Your task to perform on an android device: Open network settings Image 0: 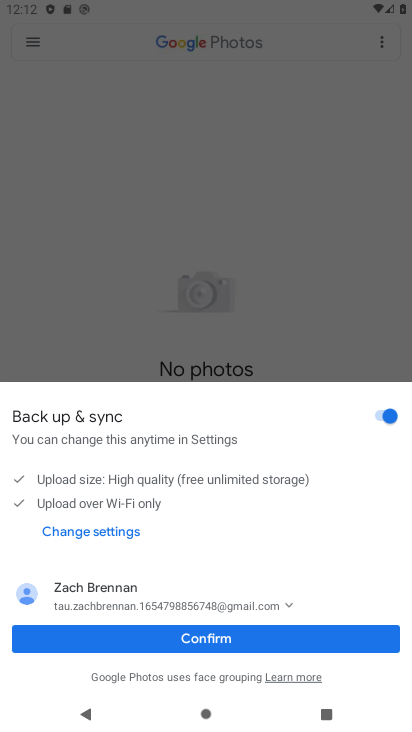
Step 0: press home button
Your task to perform on an android device: Open network settings Image 1: 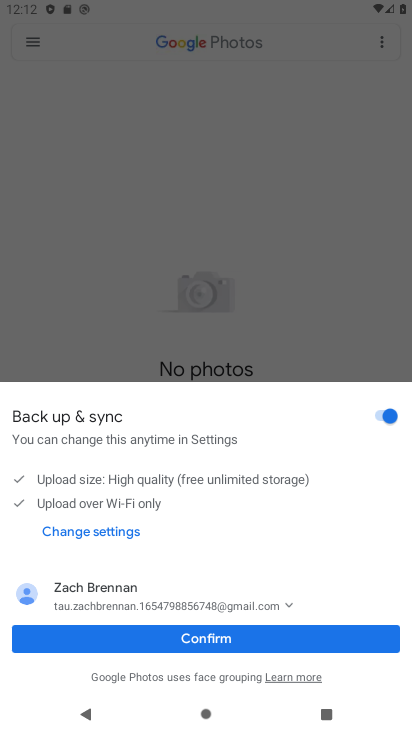
Step 1: press home button
Your task to perform on an android device: Open network settings Image 2: 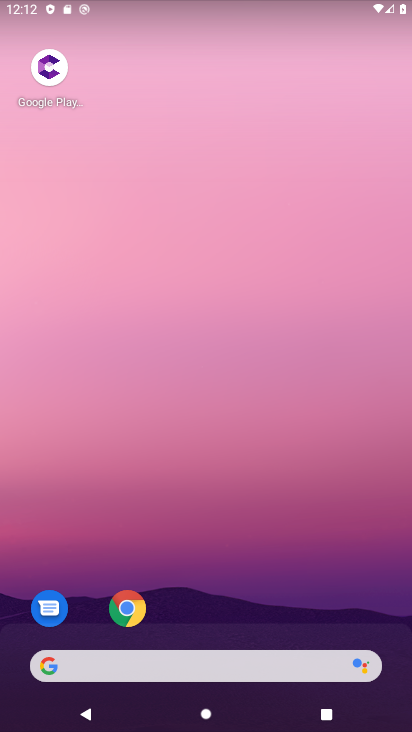
Step 2: drag from (285, 595) to (315, 15)
Your task to perform on an android device: Open network settings Image 3: 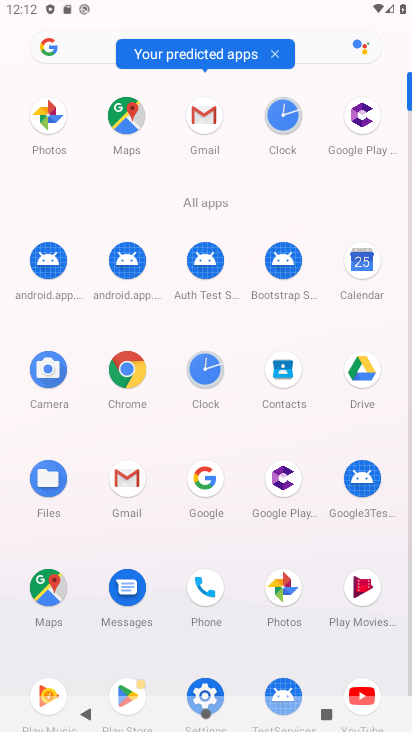
Step 3: click (199, 687)
Your task to perform on an android device: Open network settings Image 4: 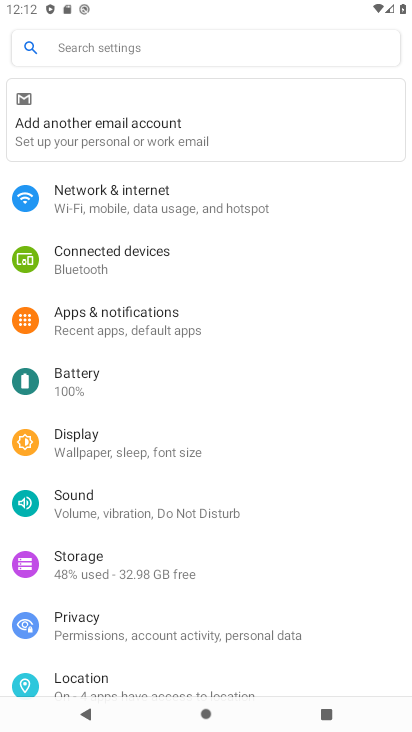
Step 4: click (165, 194)
Your task to perform on an android device: Open network settings Image 5: 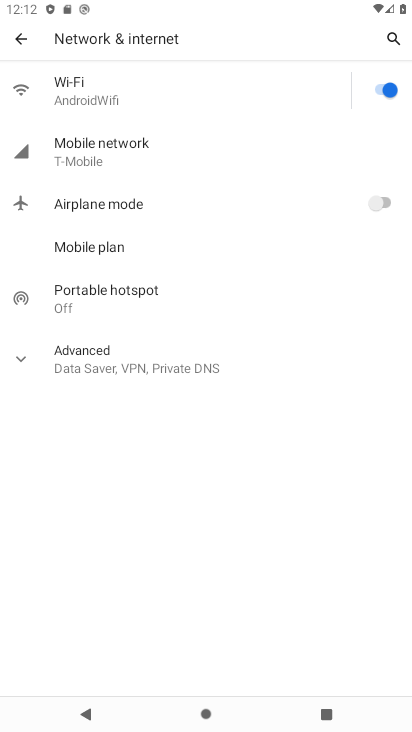
Step 5: click (109, 93)
Your task to perform on an android device: Open network settings Image 6: 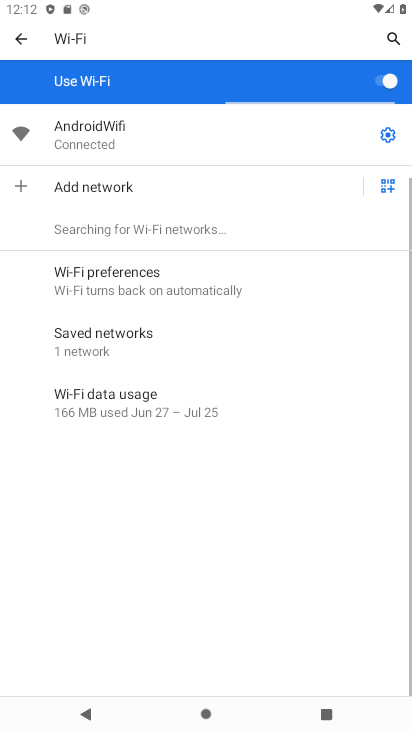
Step 6: click (25, 36)
Your task to perform on an android device: Open network settings Image 7: 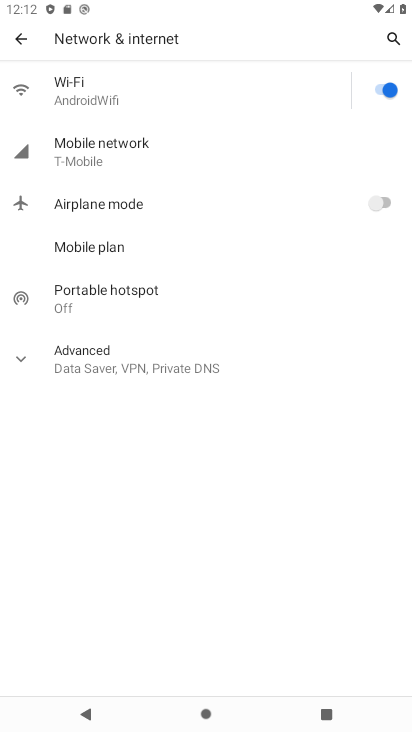
Step 7: click (132, 361)
Your task to perform on an android device: Open network settings Image 8: 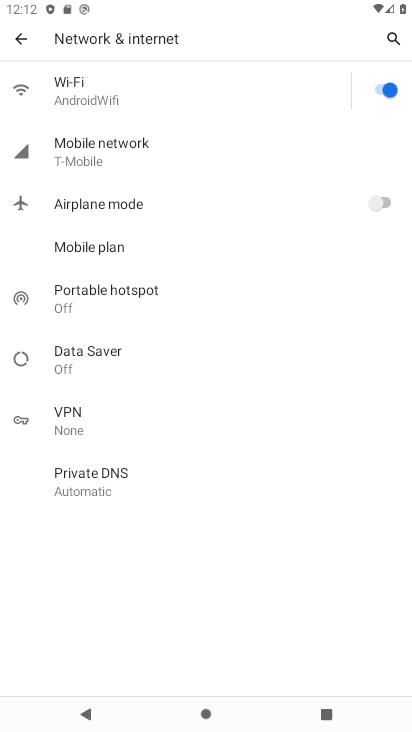
Step 8: task complete